Your task to perform on an android device: Go to battery settings Image 0: 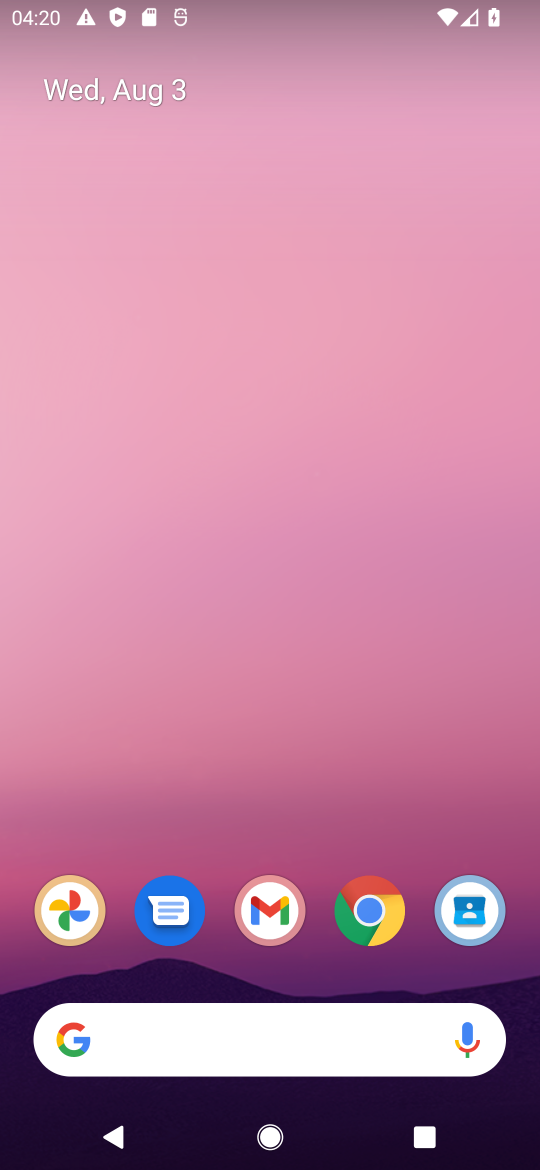
Step 0: press home button
Your task to perform on an android device: Go to battery settings Image 1: 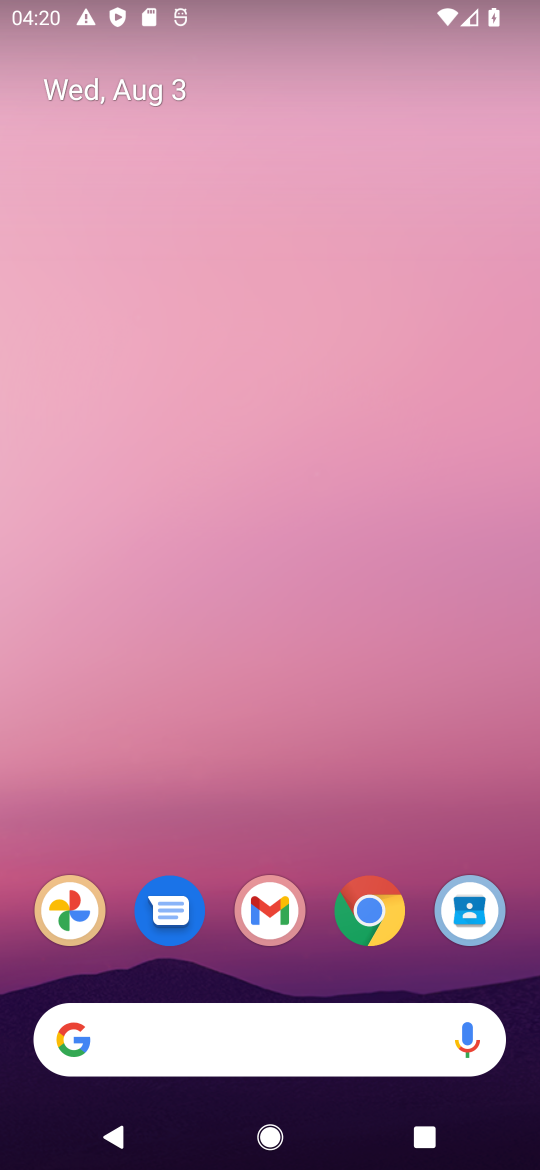
Step 1: drag from (319, 835) to (346, 2)
Your task to perform on an android device: Go to battery settings Image 2: 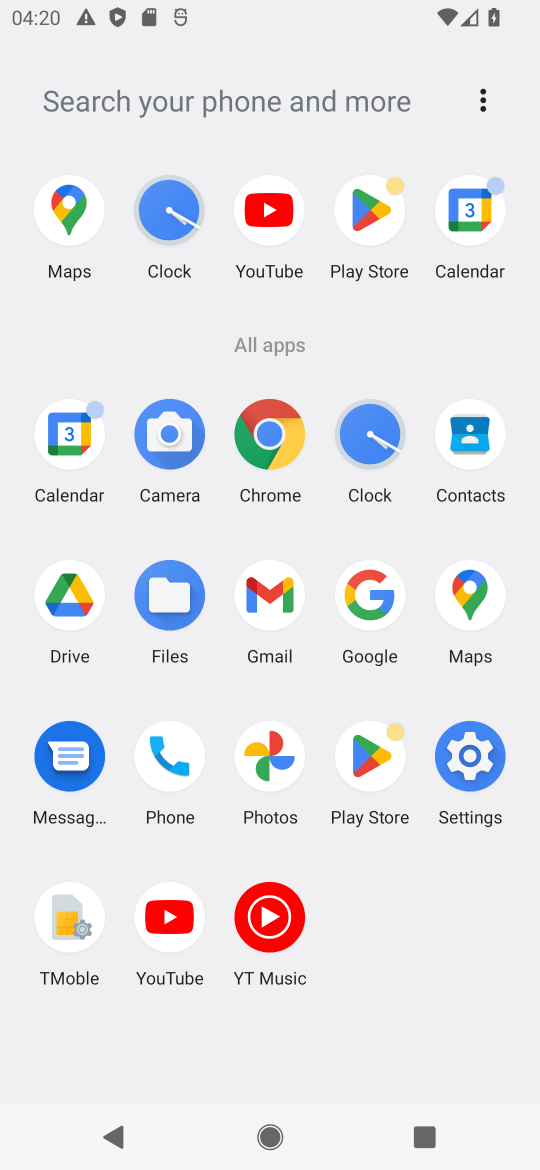
Step 2: click (467, 747)
Your task to perform on an android device: Go to battery settings Image 3: 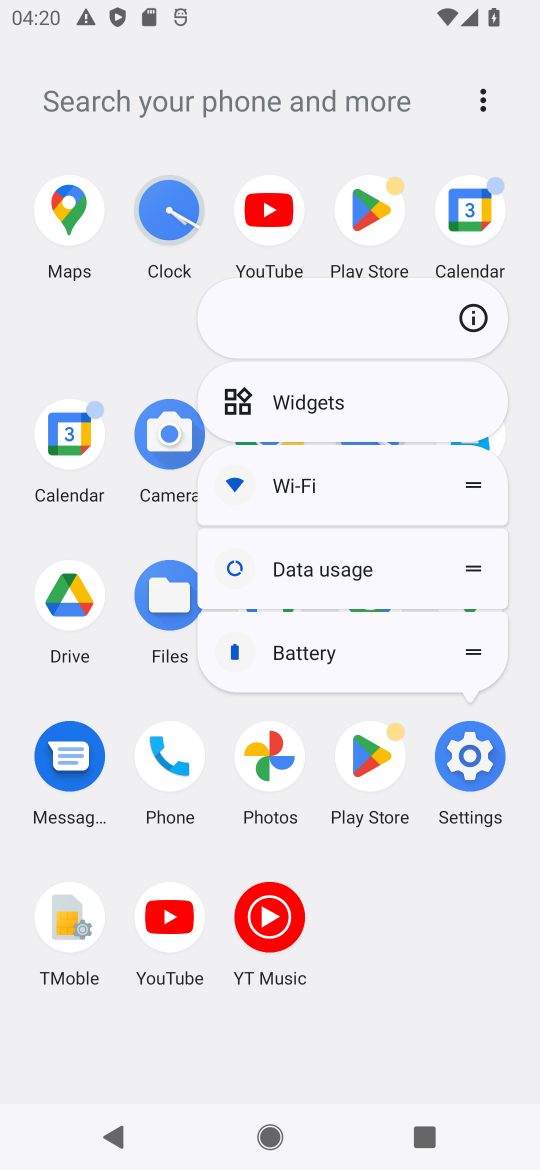
Step 3: click (464, 743)
Your task to perform on an android device: Go to battery settings Image 4: 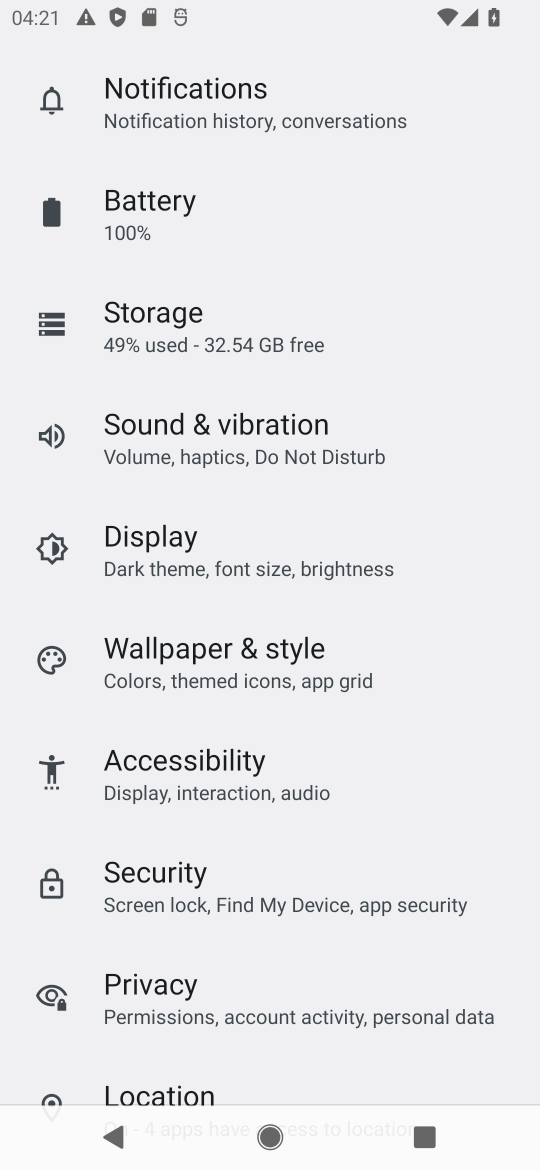
Step 4: click (208, 206)
Your task to perform on an android device: Go to battery settings Image 5: 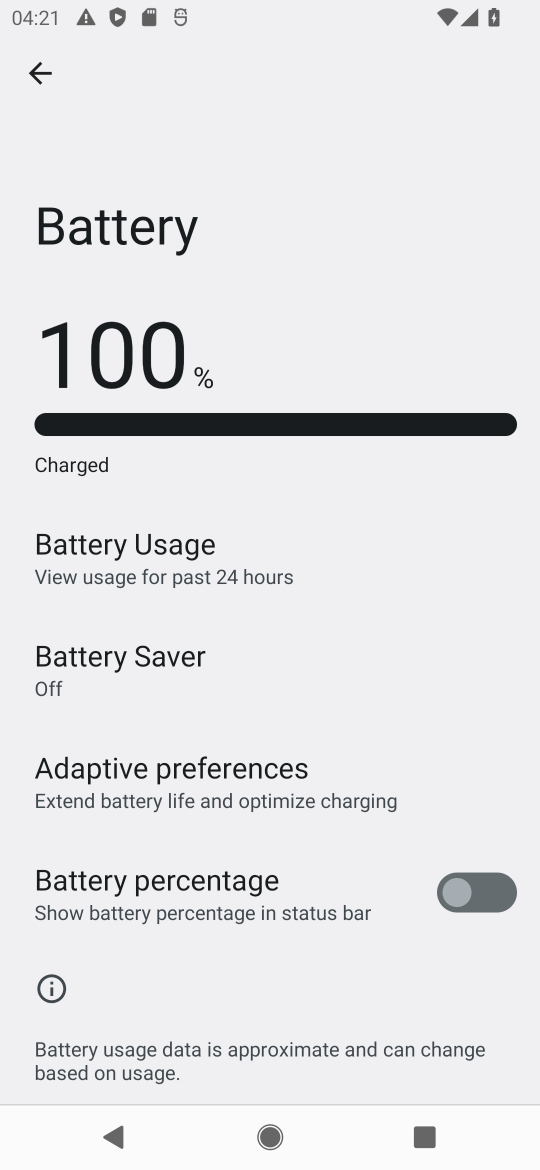
Step 5: task complete